Your task to perform on an android device: Turn off the flashlight Image 0: 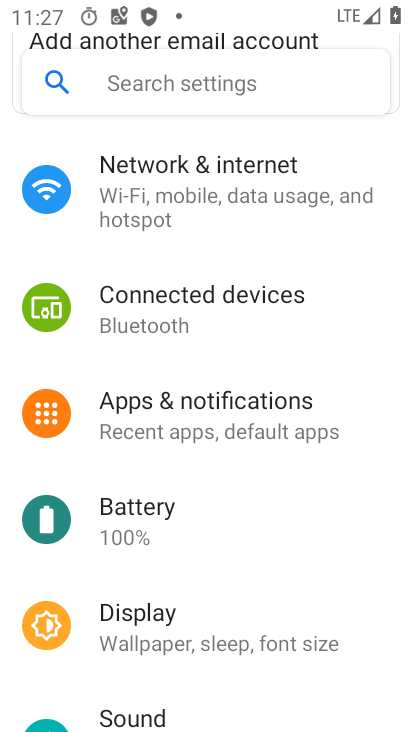
Step 0: drag from (198, 4) to (200, 731)
Your task to perform on an android device: Turn off the flashlight Image 1: 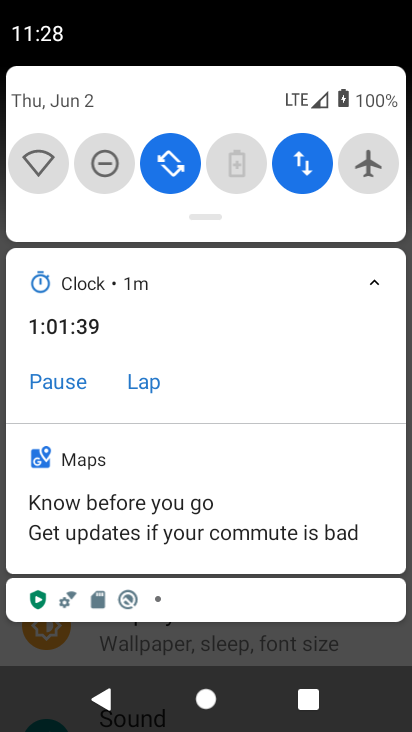
Step 1: task complete